Your task to perform on an android device: turn off translation in the chrome app Image 0: 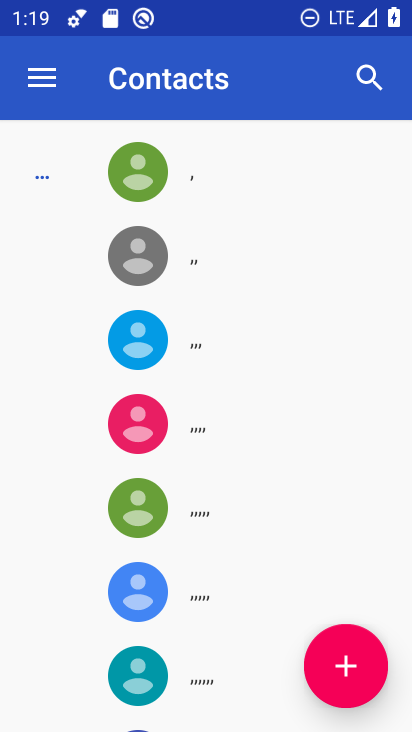
Step 0: press home button
Your task to perform on an android device: turn off translation in the chrome app Image 1: 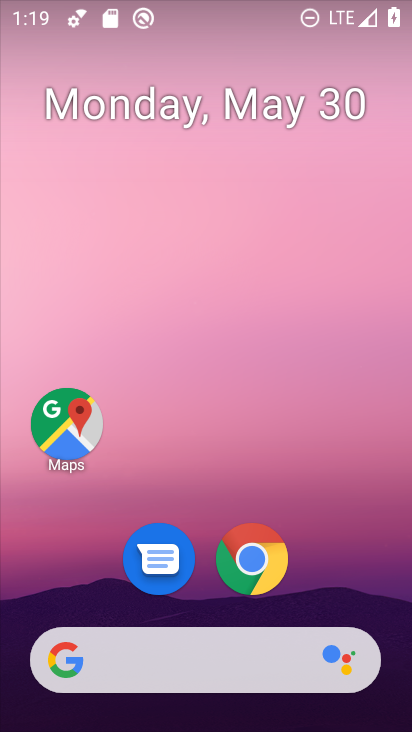
Step 1: click (254, 554)
Your task to perform on an android device: turn off translation in the chrome app Image 2: 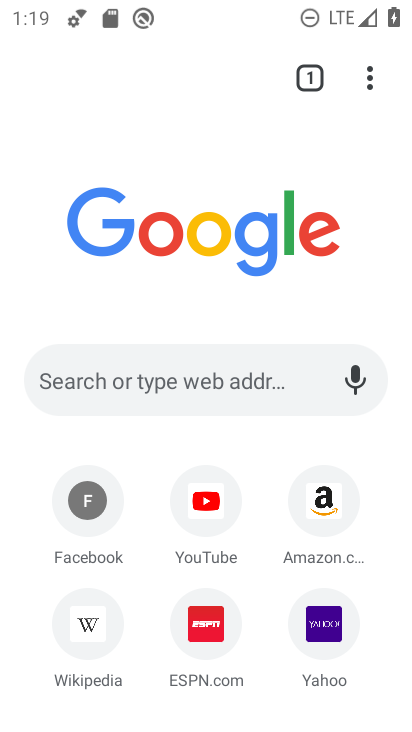
Step 2: click (370, 78)
Your task to perform on an android device: turn off translation in the chrome app Image 3: 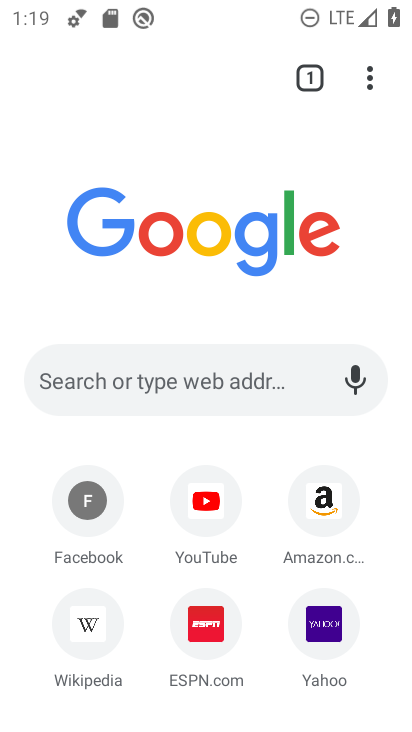
Step 3: click (371, 80)
Your task to perform on an android device: turn off translation in the chrome app Image 4: 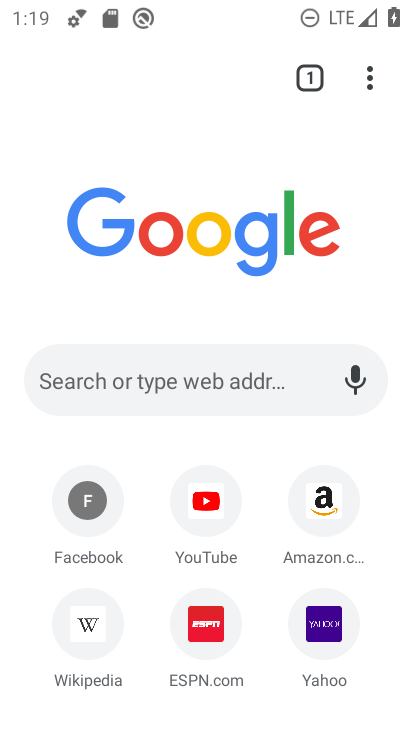
Step 4: click (366, 87)
Your task to perform on an android device: turn off translation in the chrome app Image 5: 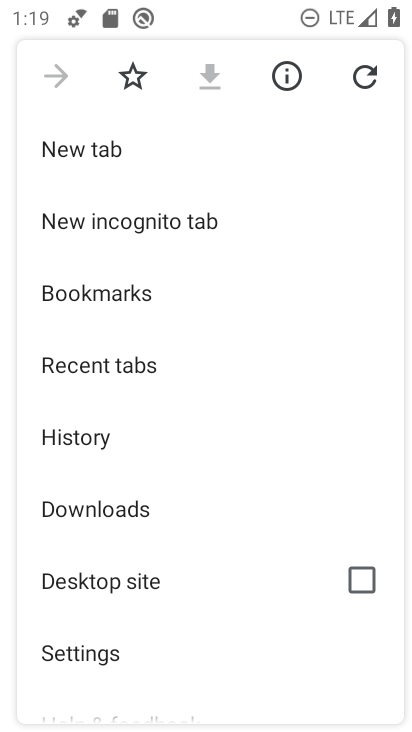
Step 5: click (67, 637)
Your task to perform on an android device: turn off translation in the chrome app Image 6: 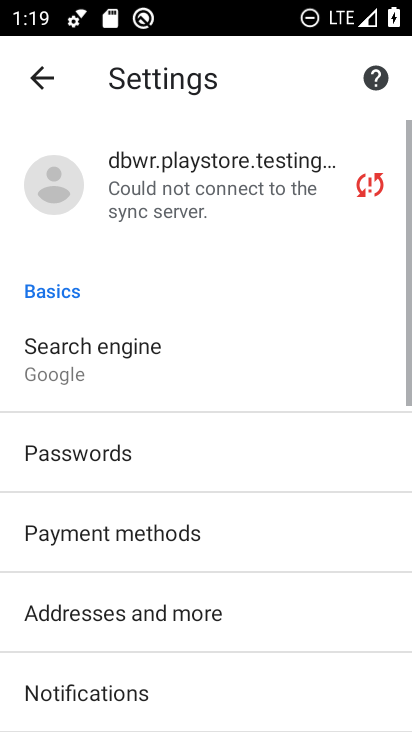
Step 6: drag from (184, 651) to (249, 310)
Your task to perform on an android device: turn off translation in the chrome app Image 7: 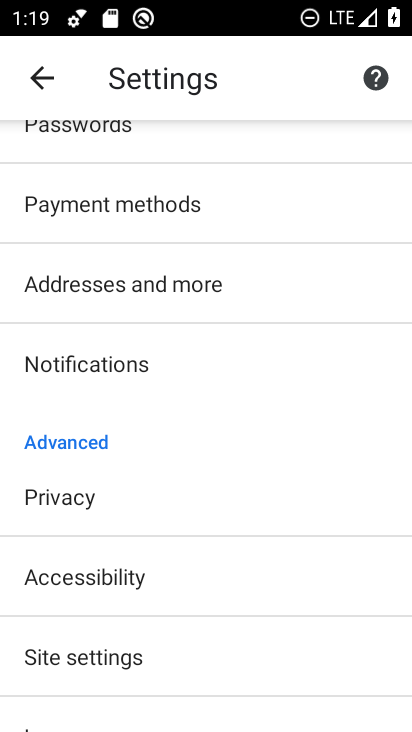
Step 7: drag from (174, 645) to (177, 332)
Your task to perform on an android device: turn off translation in the chrome app Image 8: 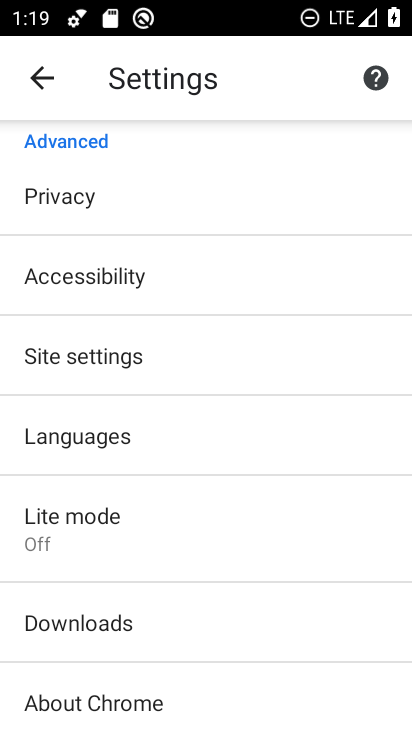
Step 8: click (140, 401)
Your task to perform on an android device: turn off translation in the chrome app Image 9: 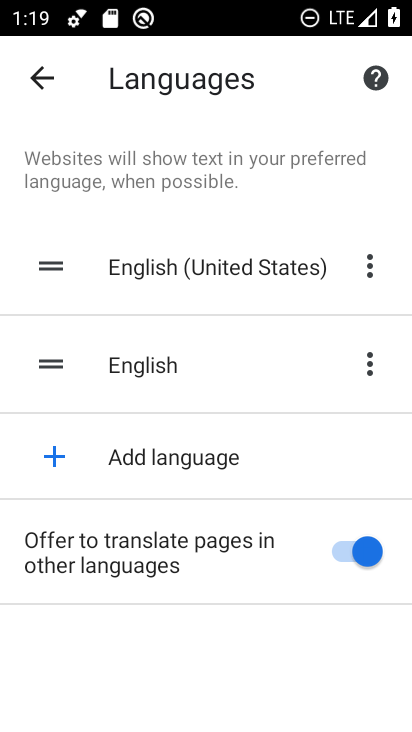
Step 9: click (348, 553)
Your task to perform on an android device: turn off translation in the chrome app Image 10: 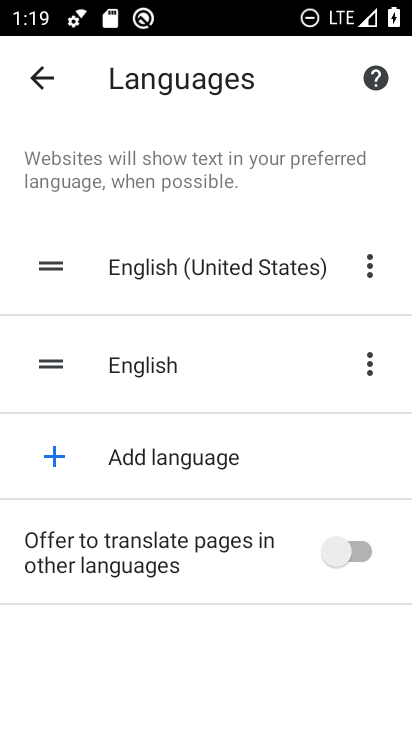
Step 10: task complete